Your task to perform on an android device: stop showing notifications on the lock screen Image 0: 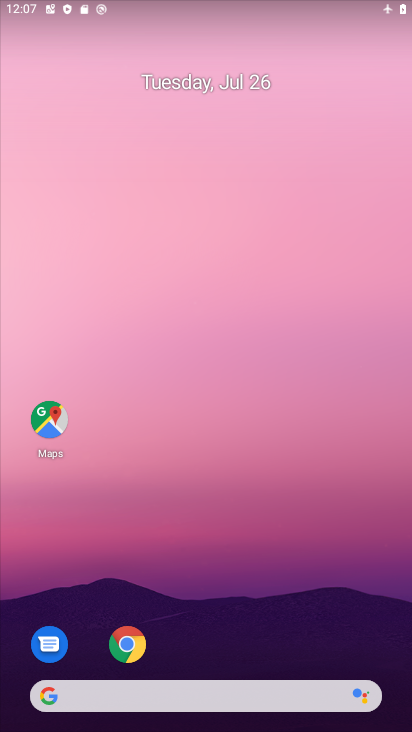
Step 0: drag from (202, 655) to (259, 365)
Your task to perform on an android device: stop showing notifications on the lock screen Image 1: 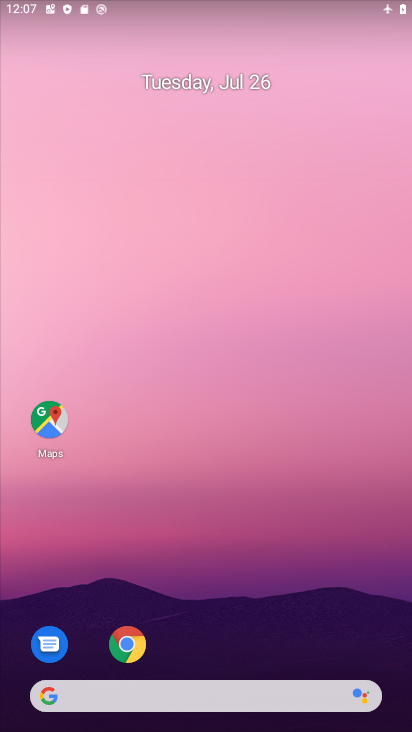
Step 1: drag from (296, 685) to (396, 11)
Your task to perform on an android device: stop showing notifications on the lock screen Image 2: 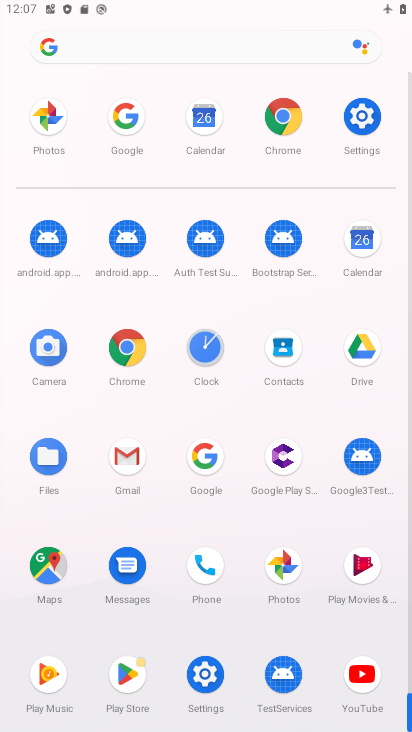
Step 2: click (373, 151)
Your task to perform on an android device: stop showing notifications on the lock screen Image 3: 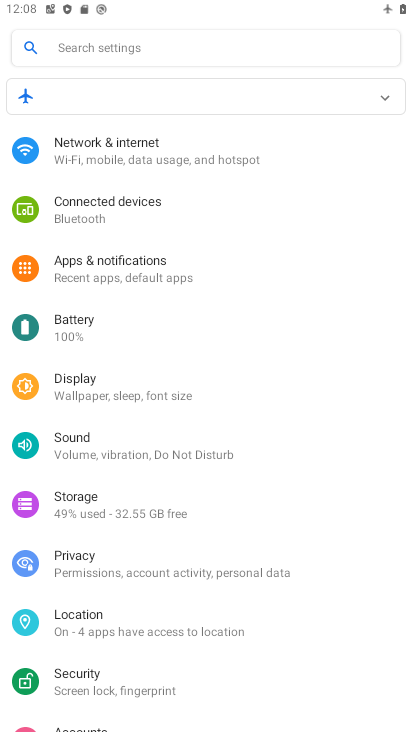
Step 3: click (111, 257)
Your task to perform on an android device: stop showing notifications on the lock screen Image 4: 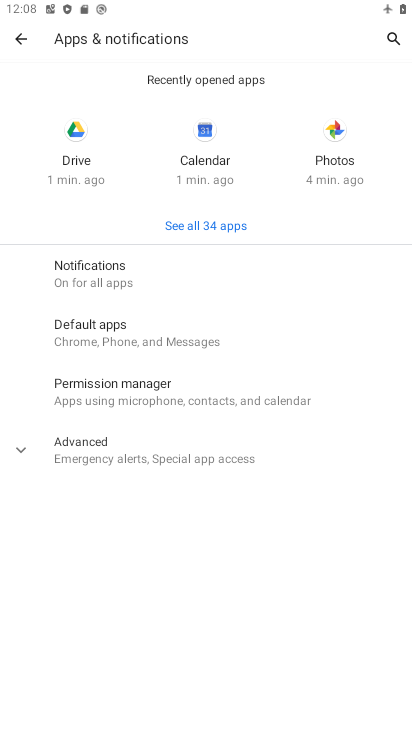
Step 4: click (117, 289)
Your task to perform on an android device: stop showing notifications on the lock screen Image 5: 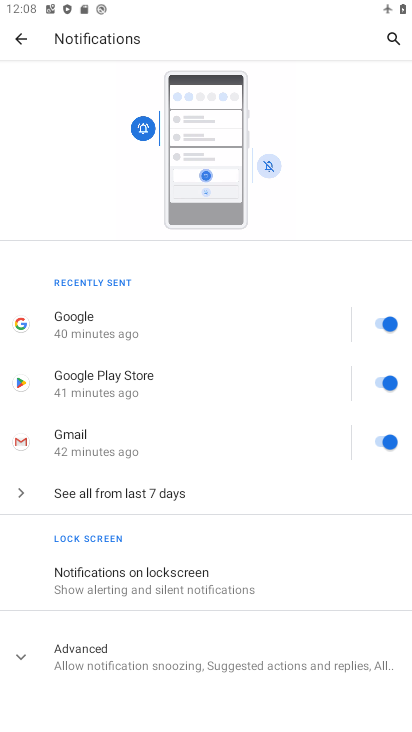
Step 5: click (132, 565)
Your task to perform on an android device: stop showing notifications on the lock screen Image 6: 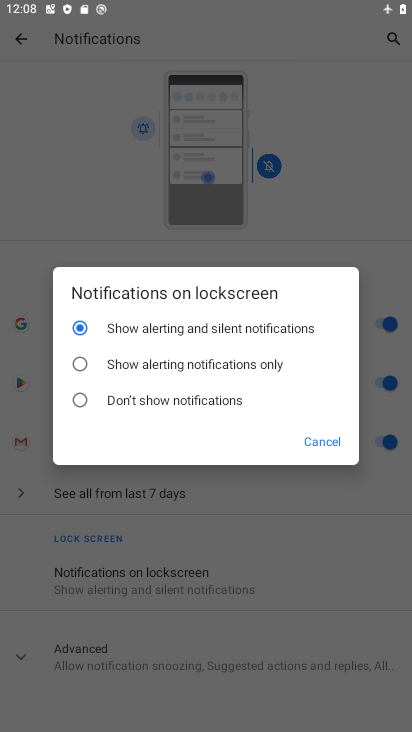
Step 6: click (205, 406)
Your task to perform on an android device: stop showing notifications on the lock screen Image 7: 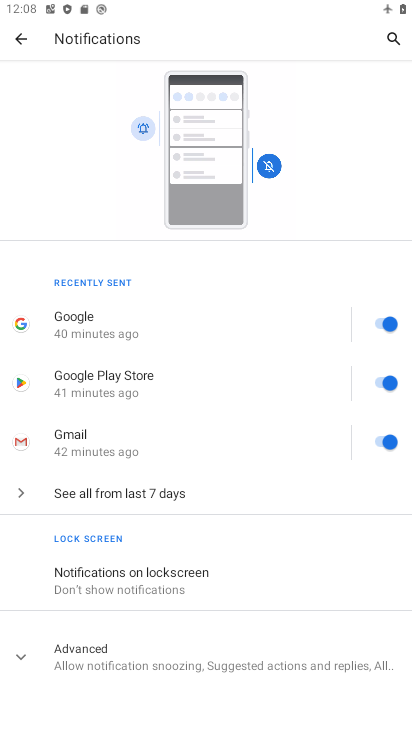
Step 7: click (183, 584)
Your task to perform on an android device: stop showing notifications on the lock screen Image 8: 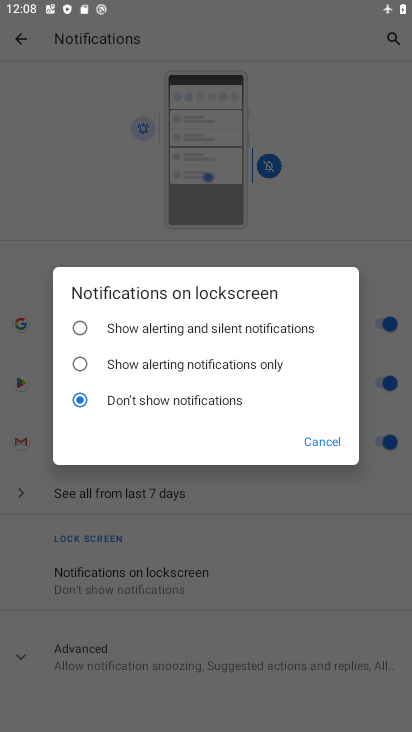
Step 8: task complete